Your task to perform on an android device: Go to accessibility settings Image 0: 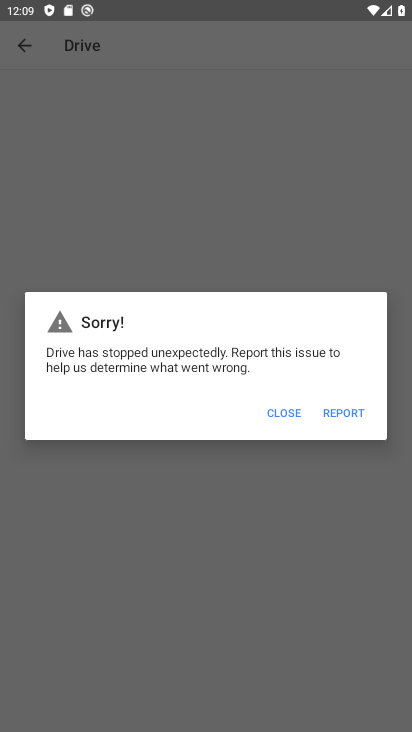
Step 0: press home button
Your task to perform on an android device: Go to accessibility settings Image 1: 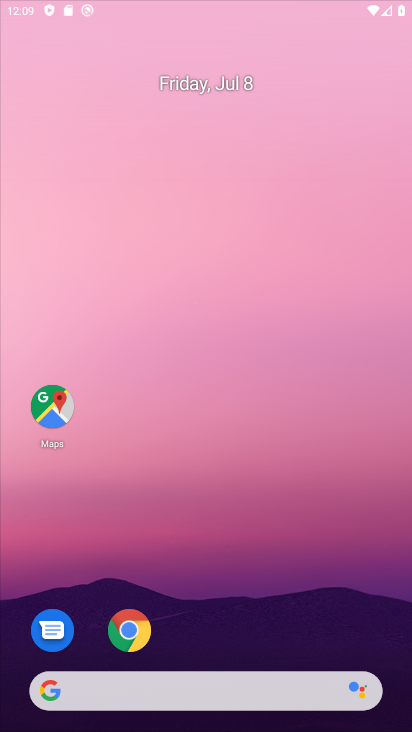
Step 1: drag from (388, 695) to (284, 0)
Your task to perform on an android device: Go to accessibility settings Image 2: 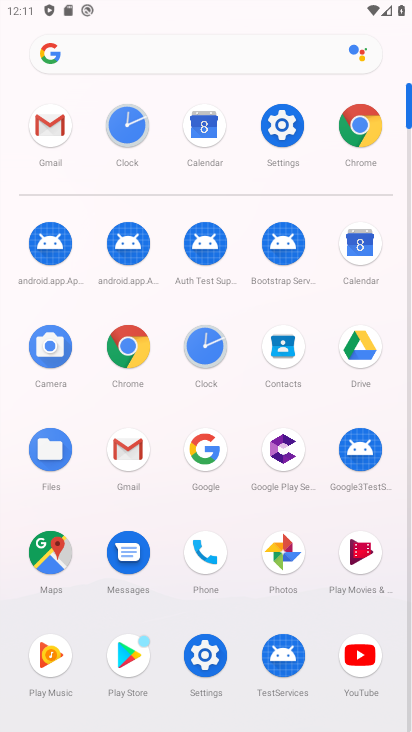
Step 2: click (204, 652)
Your task to perform on an android device: Go to accessibility settings Image 3: 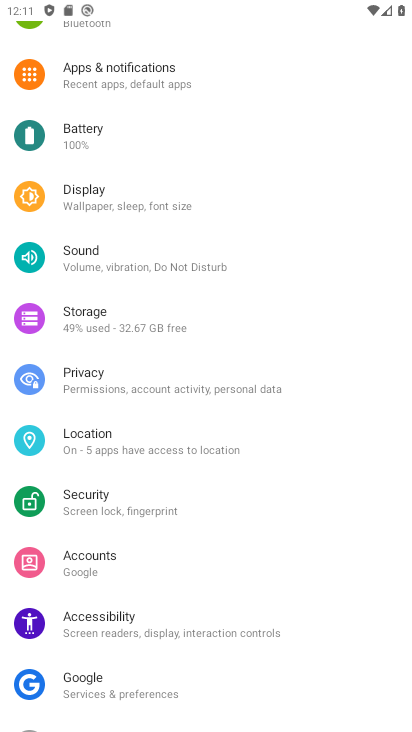
Step 3: click (96, 627)
Your task to perform on an android device: Go to accessibility settings Image 4: 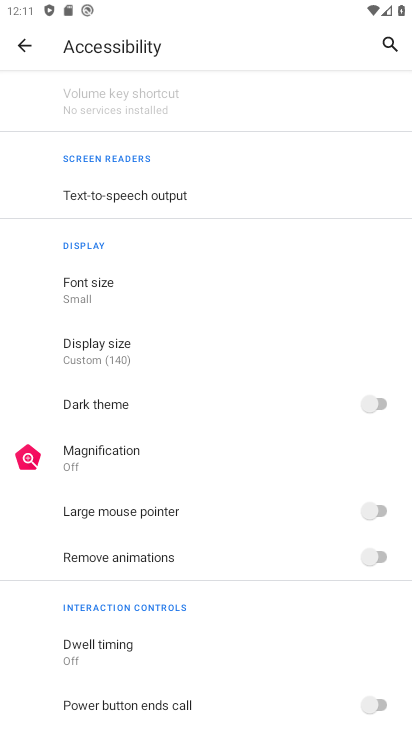
Step 4: task complete